Your task to perform on an android device: check out phone information Image 0: 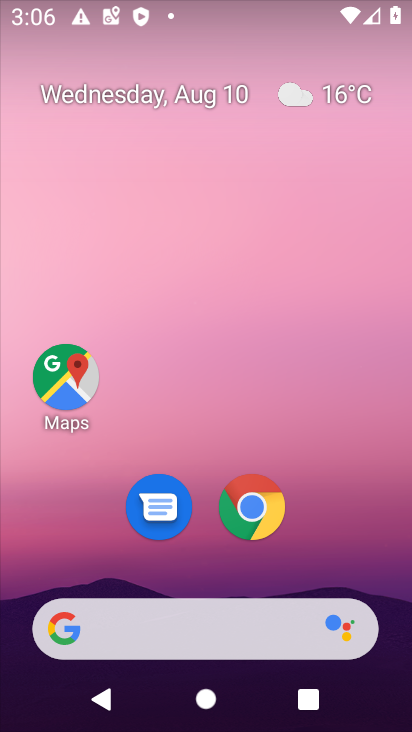
Step 0: drag from (330, 504) to (319, 24)
Your task to perform on an android device: check out phone information Image 1: 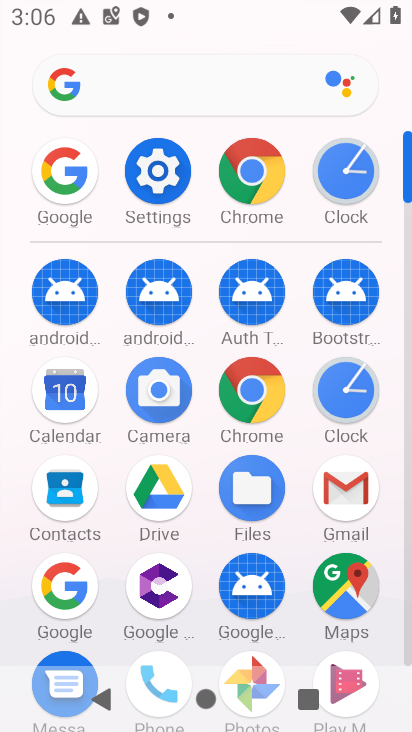
Step 1: drag from (190, 541) to (213, 266)
Your task to perform on an android device: check out phone information Image 2: 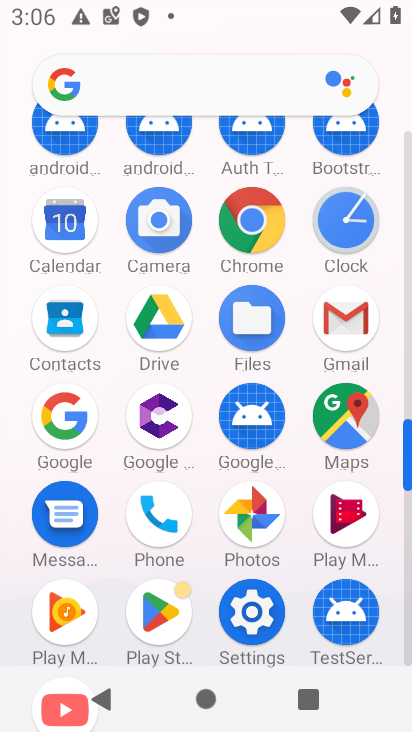
Step 2: click (160, 509)
Your task to perform on an android device: check out phone information Image 3: 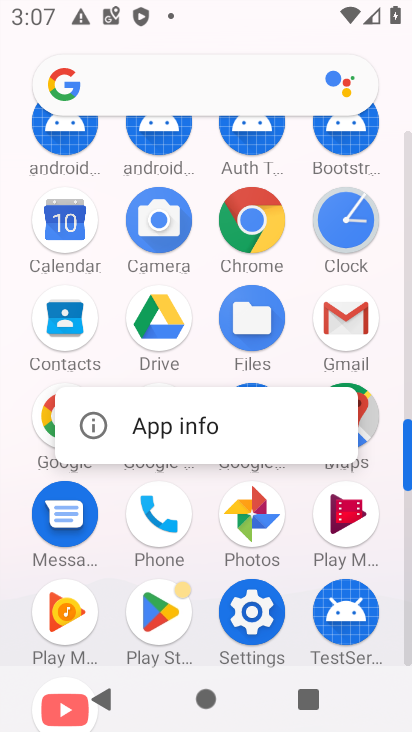
Step 3: click (198, 415)
Your task to perform on an android device: check out phone information Image 4: 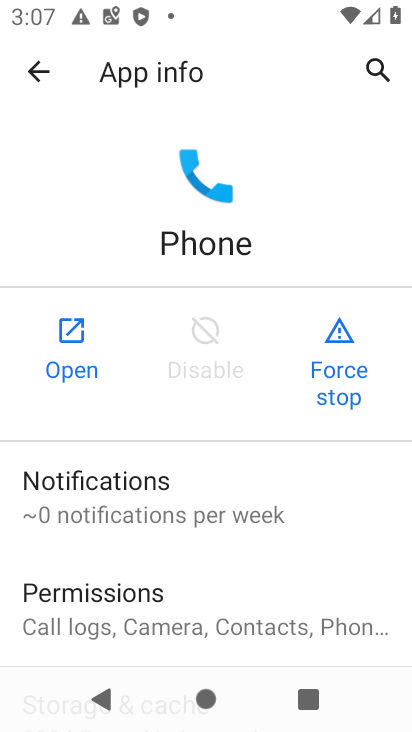
Step 4: task complete